Your task to perform on an android device: See recent photos Image 0: 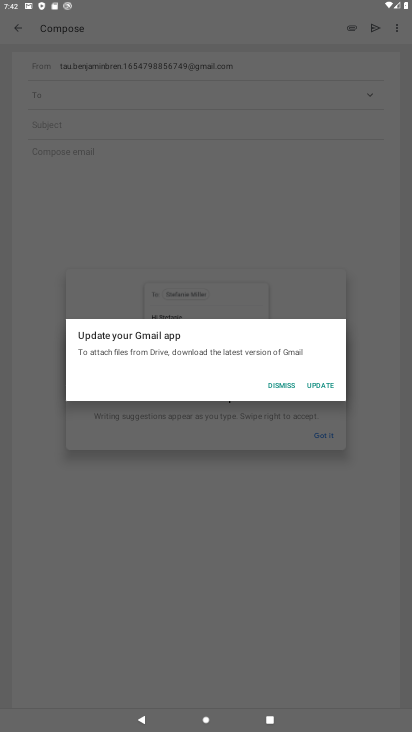
Step 0: click (277, 388)
Your task to perform on an android device: See recent photos Image 1: 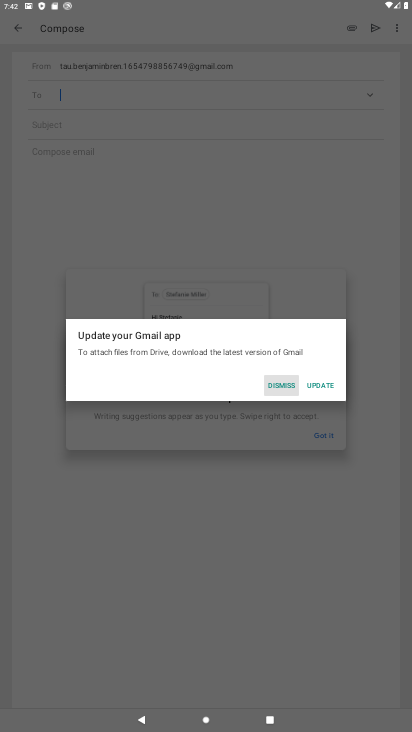
Step 1: click (261, 370)
Your task to perform on an android device: See recent photos Image 2: 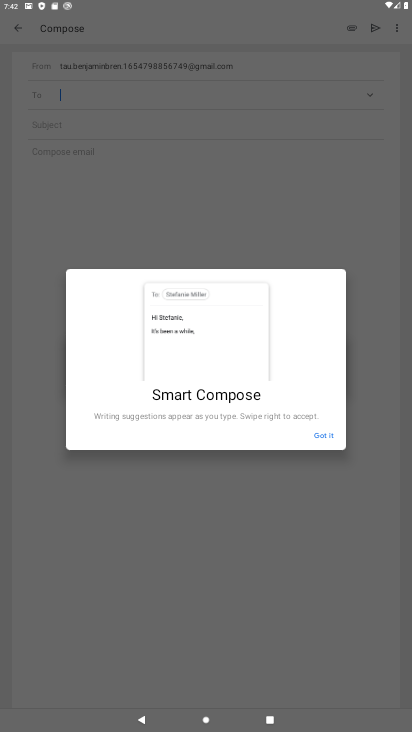
Step 2: press back button
Your task to perform on an android device: See recent photos Image 3: 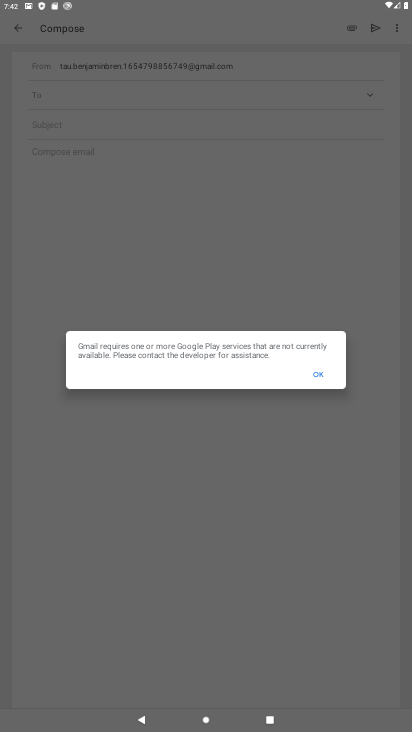
Step 3: click (319, 437)
Your task to perform on an android device: See recent photos Image 4: 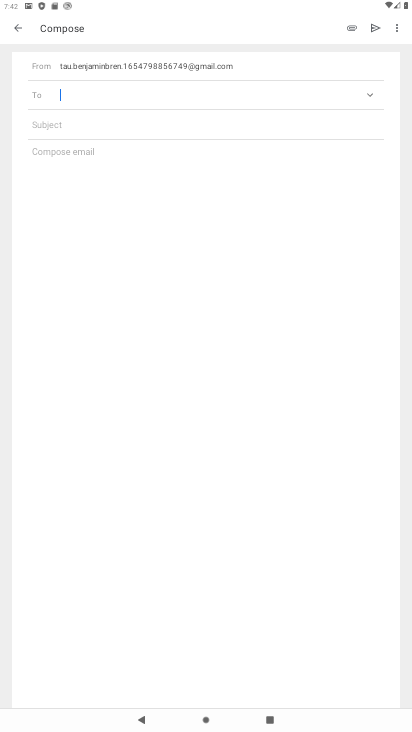
Step 4: click (324, 366)
Your task to perform on an android device: See recent photos Image 5: 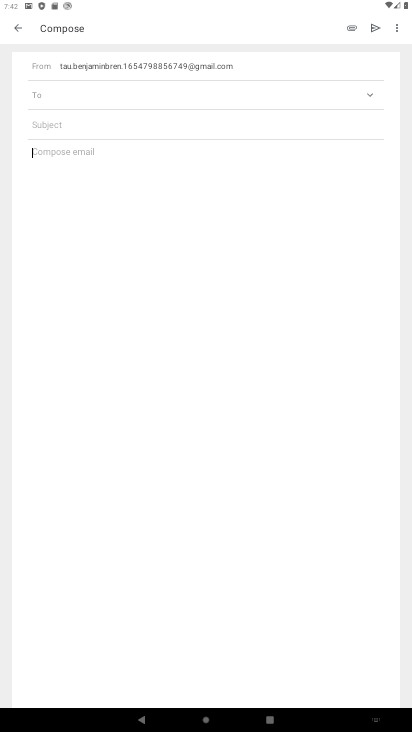
Step 5: press back button
Your task to perform on an android device: See recent photos Image 6: 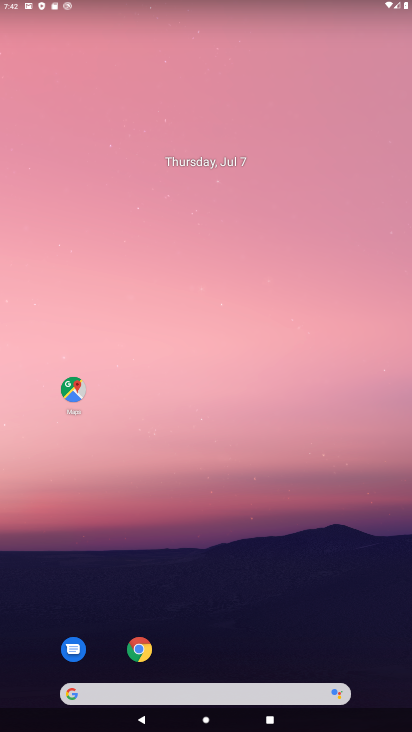
Step 6: drag from (244, 642) to (406, 182)
Your task to perform on an android device: See recent photos Image 7: 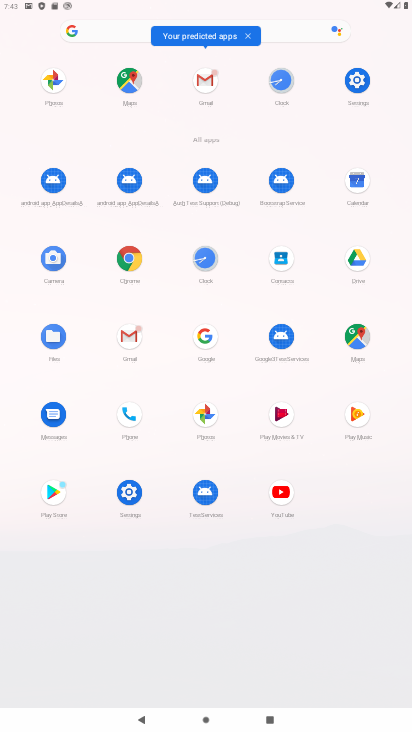
Step 7: click (208, 414)
Your task to perform on an android device: See recent photos Image 8: 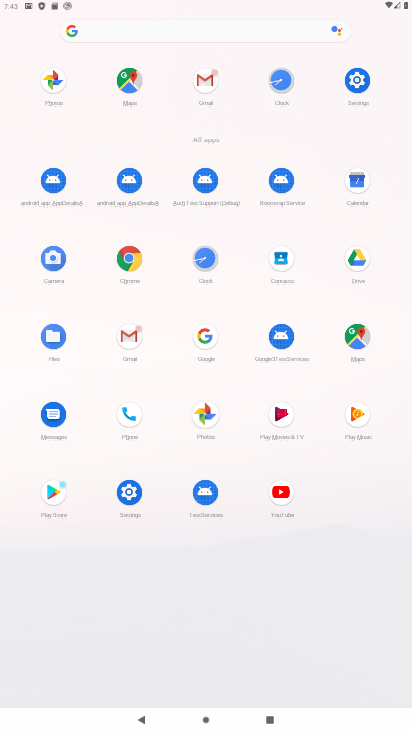
Step 8: click (208, 414)
Your task to perform on an android device: See recent photos Image 9: 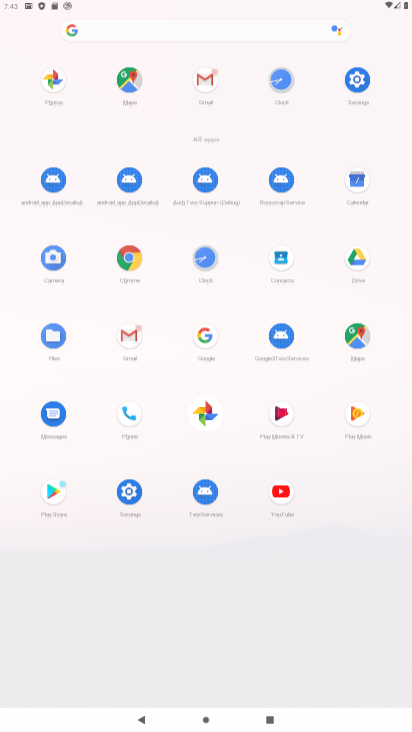
Step 9: click (206, 412)
Your task to perform on an android device: See recent photos Image 10: 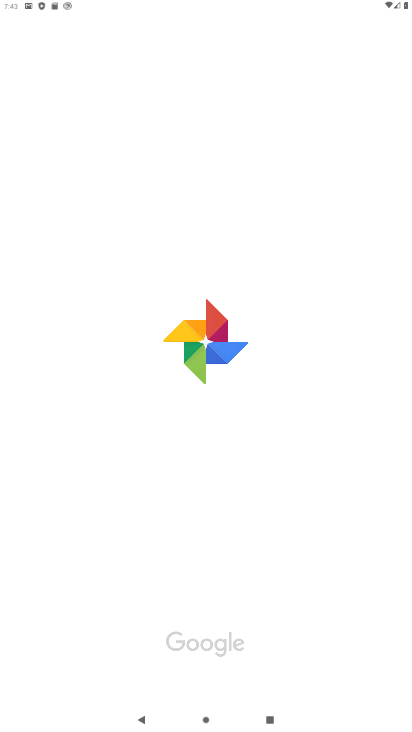
Step 10: click (206, 413)
Your task to perform on an android device: See recent photos Image 11: 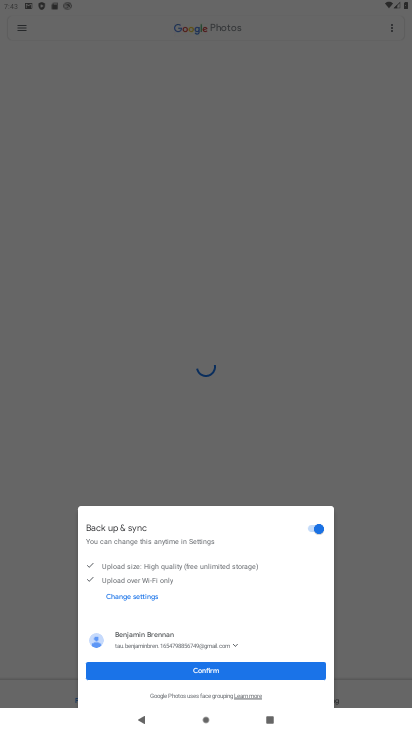
Step 11: click (211, 671)
Your task to perform on an android device: See recent photos Image 12: 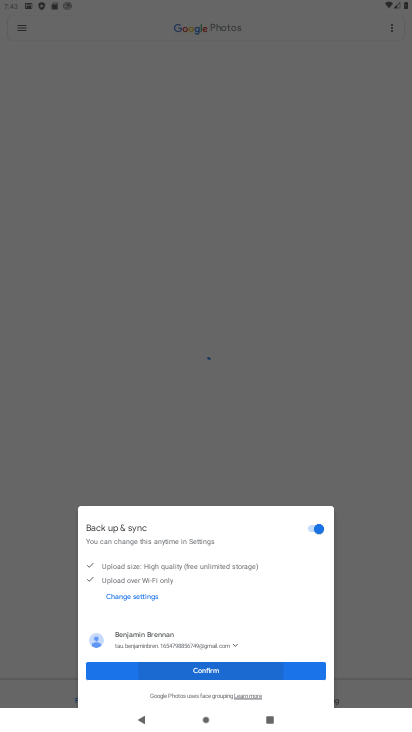
Step 12: click (211, 671)
Your task to perform on an android device: See recent photos Image 13: 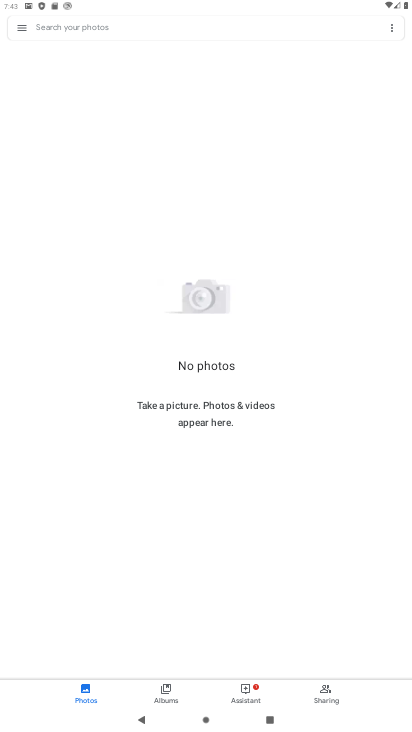
Step 13: task complete